Your task to perform on an android device: toggle priority inbox in the gmail app Image 0: 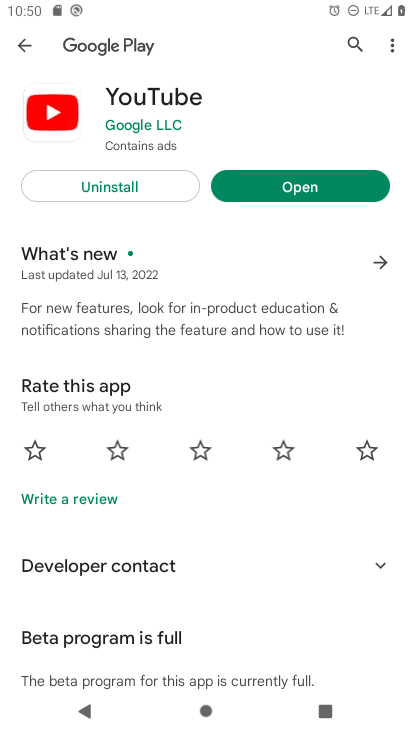
Step 0: press home button
Your task to perform on an android device: toggle priority inbox in the gmail app Image 1: 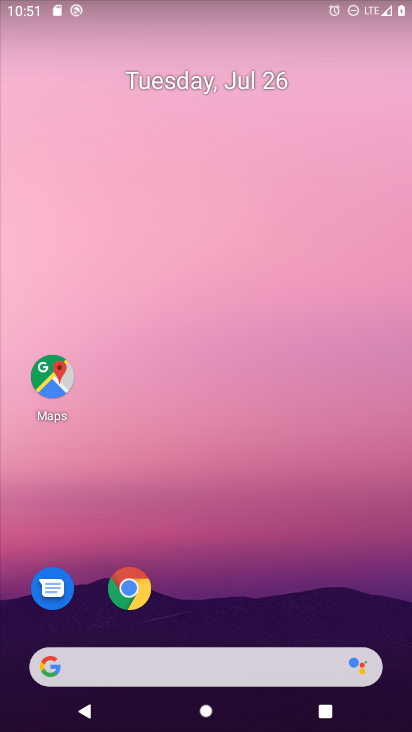
Step 1: drag from (244, 618) to (168, 49)
Your task to perform on an android device: toggle priority inbox in the gmail app Image 2: 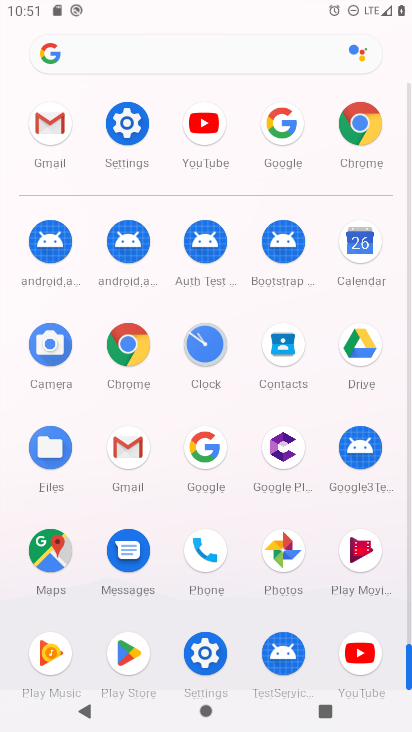
Step 2: click (135, 469)
Your task to perform on an android device: toggle priority inbox in the gmail app Image 3: 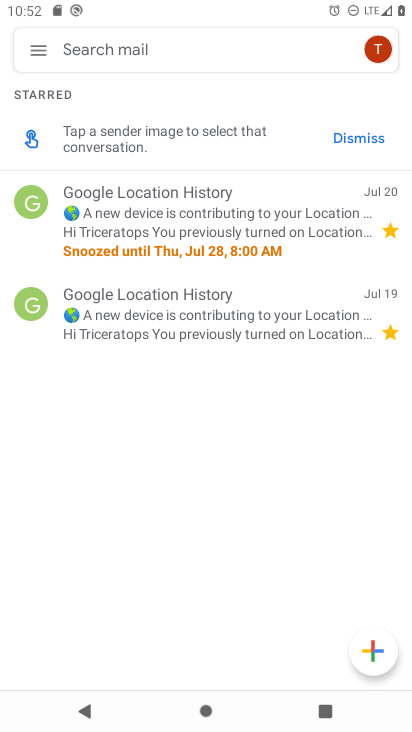
Step 3: click (37, 58)
Your task to perform on an android device: toggle priority inbox in the gmail app Image 4: 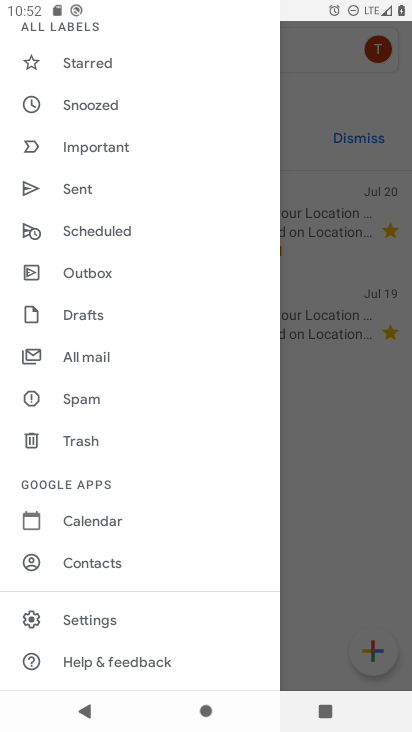
Step 4: click (61, 617)
Your task to perform on an android device: toggle priority inbox in the gmail app Image 5: 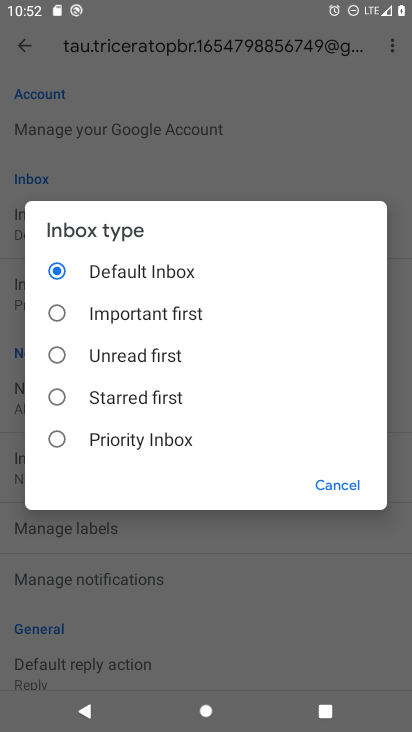
Step 5: click (149, 437)
Your task to perform on an android device: toggle priority inbox in the gmail app Image 6: 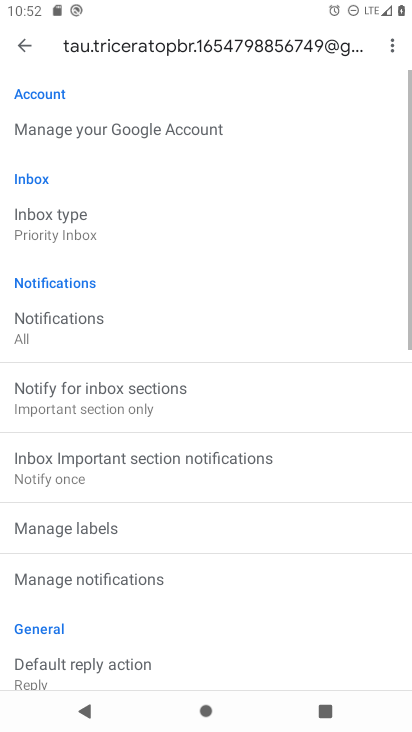
Step 6: task complete